Your task to perform on an android device: Search for Mexican restaurants on Maps Image 0: 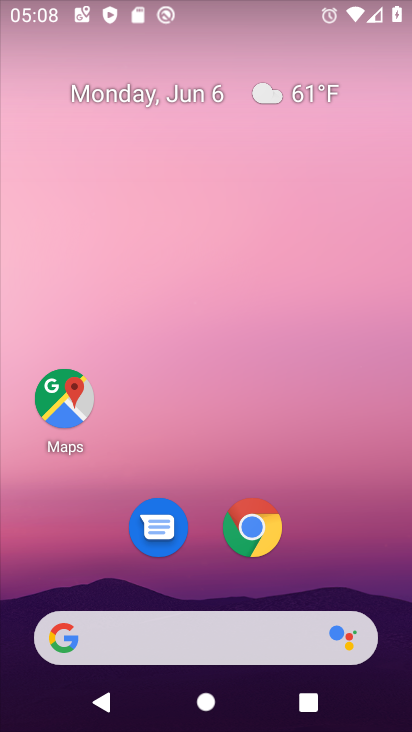
Step 0: click (54, 397)
Your task to perform on an android device: Search for Mexican restaurants on Maps Image 1: 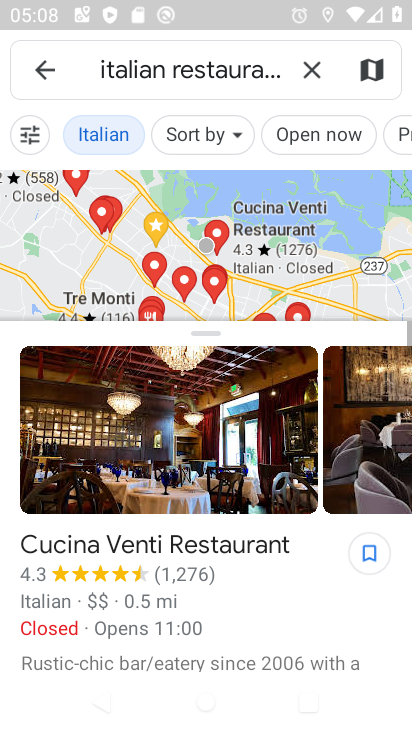
Step 1: click (303, 77)
Your task to perform on an android device: Search for Mexican restaurants on Maps Image 2: 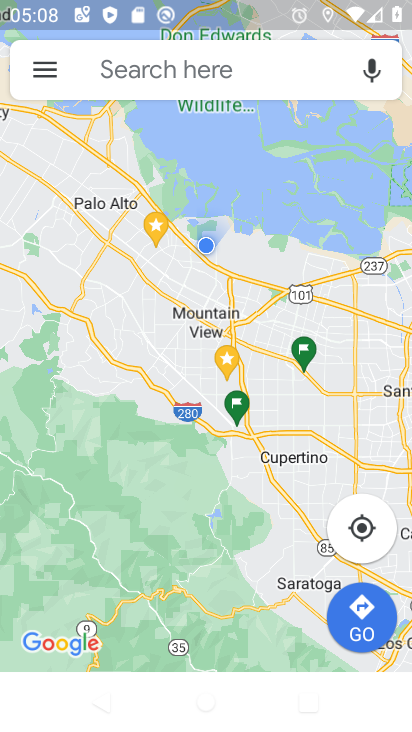
Step 2: click (120, 74)
Your task to perform on an android device: Search for Mexican restaurants on Maps Image 3: 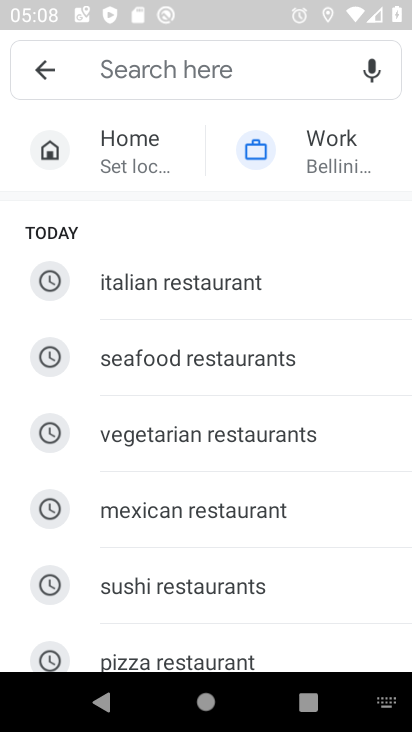
Step 3: type "Mexican restaurants "
Your task to perform on an android device: Search for Mexican restaurants on Maps Image 4: 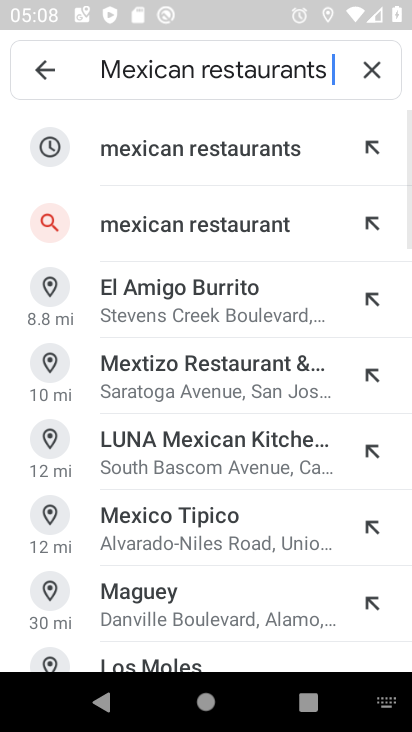
Step 4: click (162, 144)
Your task to perform on an android device: Search for Mexican restaurants on Maps Image 5: 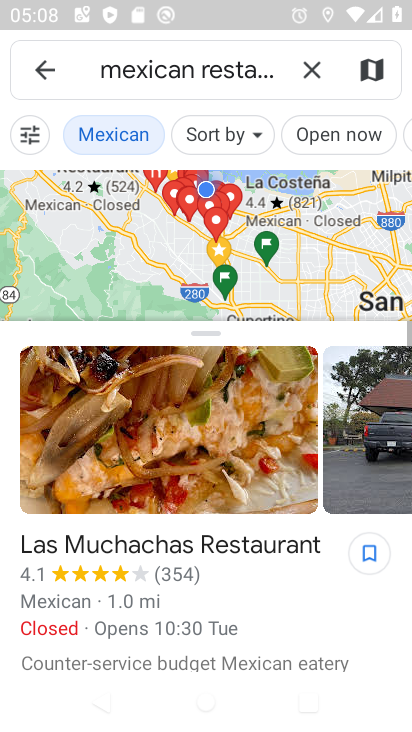
Step 5: task complete